Your task to perform on an android device: Open Chrome and go to settings Image 0: 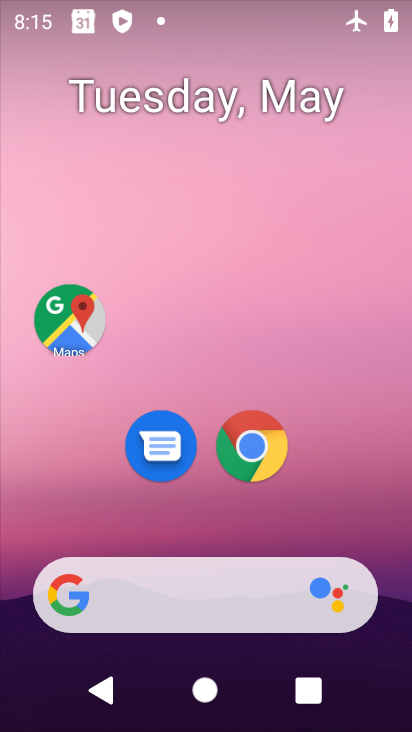
Step 0: click (251, 453)
Your task to perform on an android device: Open Chrome and go to settings Image 1: 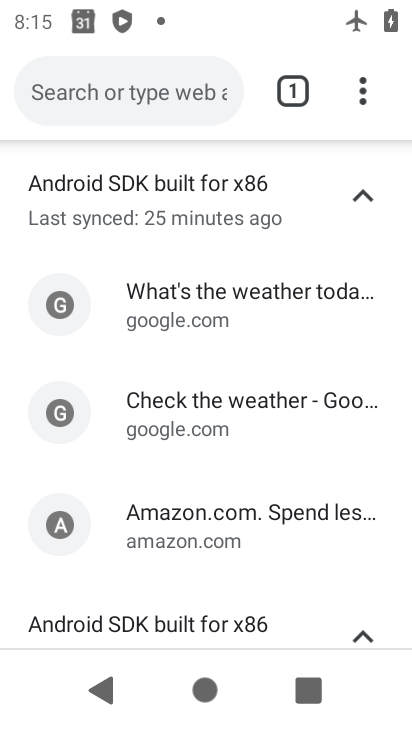
Step 1: click (365, 95)
Your task to perform on an android device: Open Chrome and go to settings Image 2: 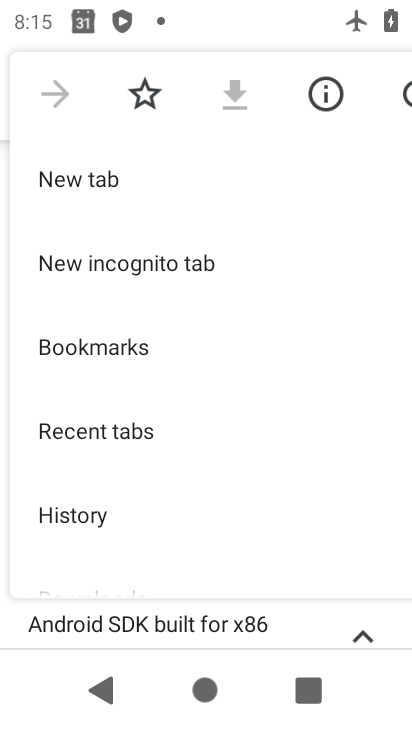
Step 2: drag from (191, 475) to (202, 130)
Your task to perform on an android device: Open Chrome and go to settings Image 3: 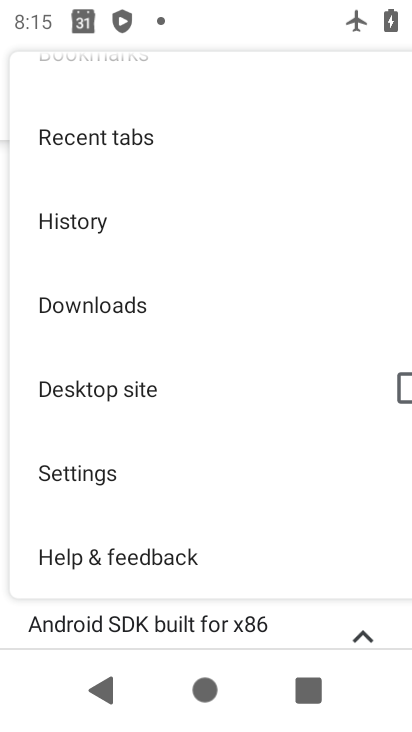
Step 3: click (80, 471)
Your task to perform on an android device: Open Chrome and go to settings Image 4: 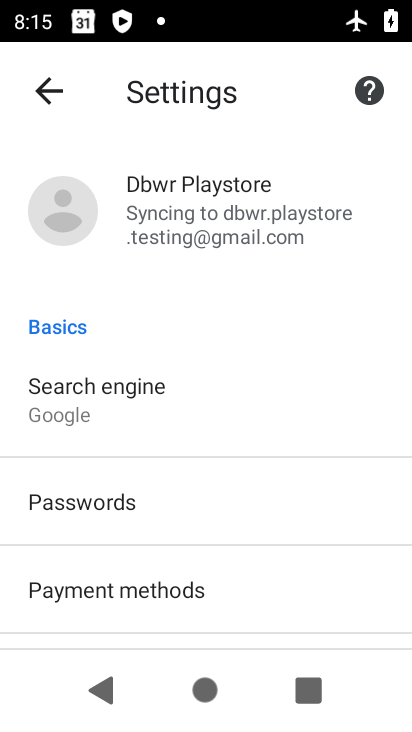
Step 4: task complete